Your task to perform on an android device: Open calendar and show me the fourth week of next month Image 0: 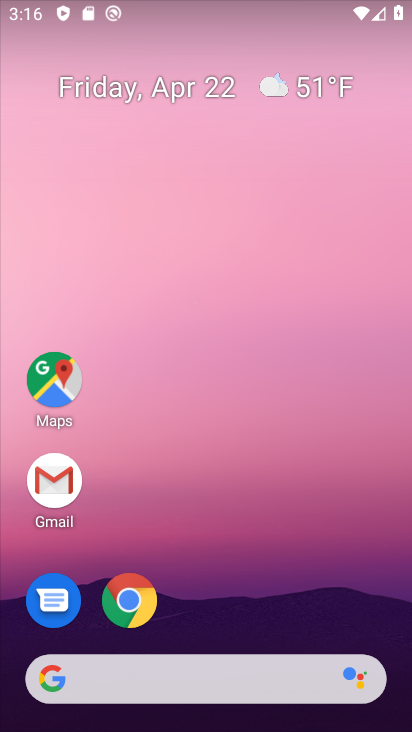
Step 0: drag from (297, 691) to (190, 69)
Your task to perform on an android device: Open calendar and show me the fourth week of next month Image 1: 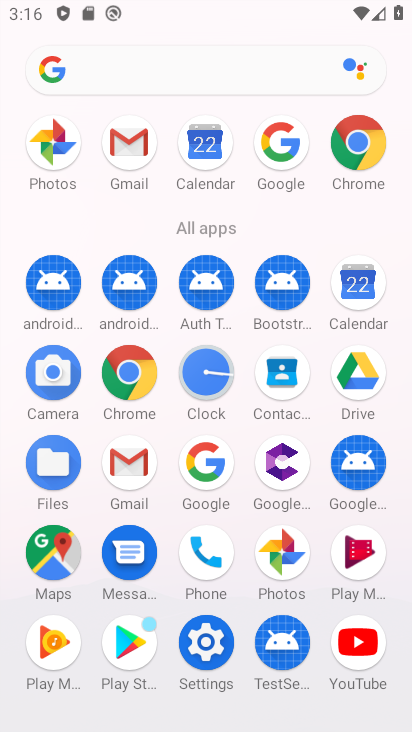
Step 1: drag from (212, 522) to (167, 155)
Your task to perform on an android device: Open calendar and show me the fourth week of next month Image 2: 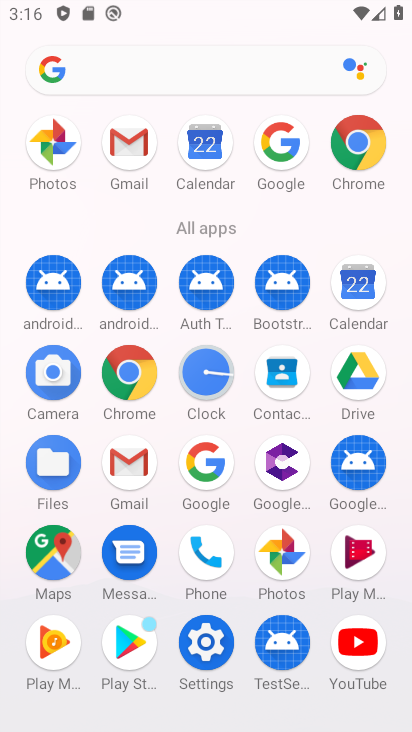
Step 2: click (211, 146)
Your task to perform on an android device: Open calendar and show me the fourth week of next month Image 3: 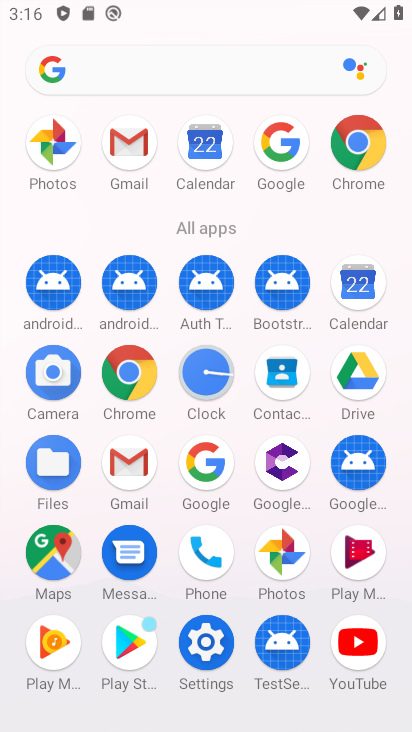
Step 3: click (211, 146)
Your task to perform on an android device: Open calendar and show me the fourth week of next month Image 4: 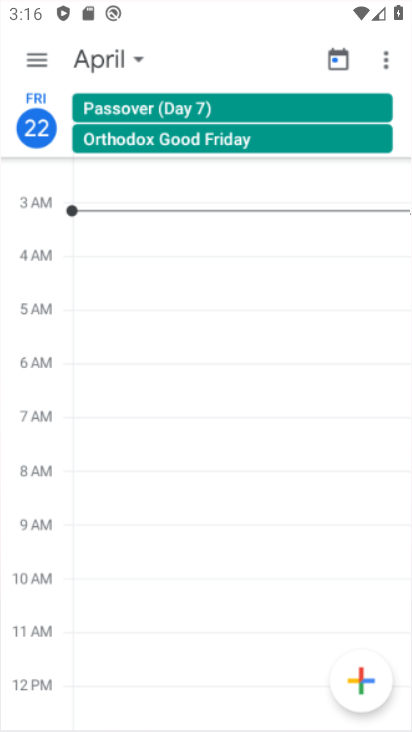
Step 4: click (211, 143)
Your task to perform on an android device: Open calendar and show me the fourth week of next month Image 5: 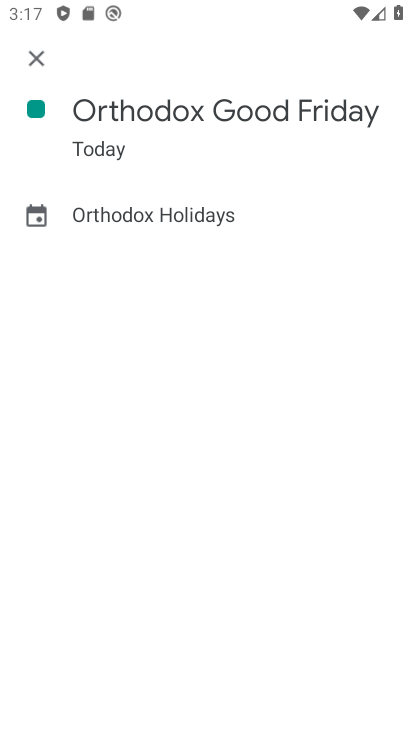
Step 5: click (37, 56)
Your task to perform on an android device: Open calendar and show me the fourth week of next month Image 6: 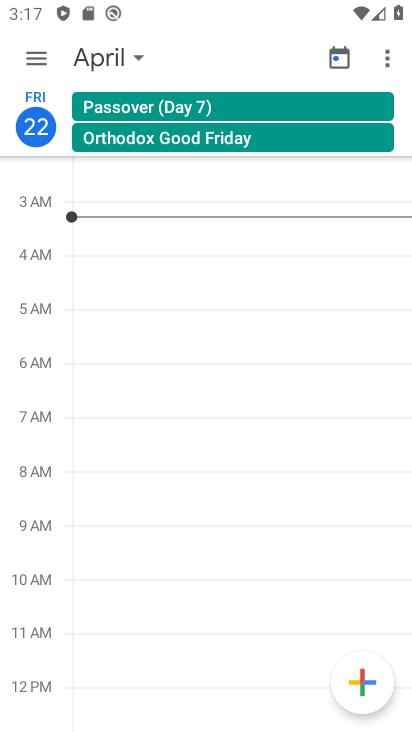
Step 6: click (134, 57)
Your task to perform on an android device: Open calendar and show me the fourth week of next month Image 7: 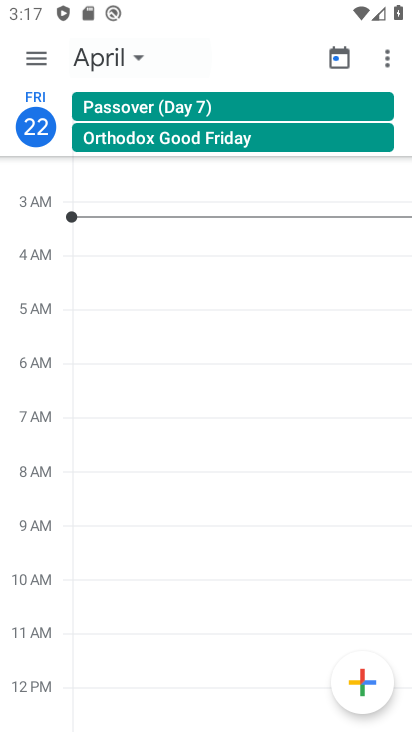
Step 7: click (136, 61)
Your task to perform on an android device: Open calendar and show me the fourth week of next month Image 8: 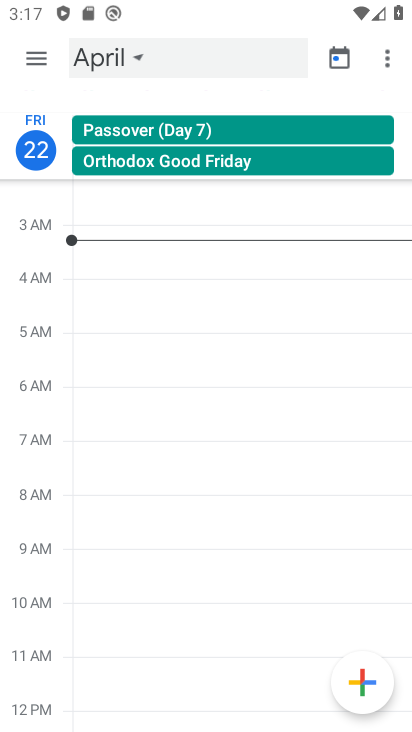
Step 8: click (139, 68)
Your task to perform on an android device: Open calendar and show me the fourth week of next month Image 9: 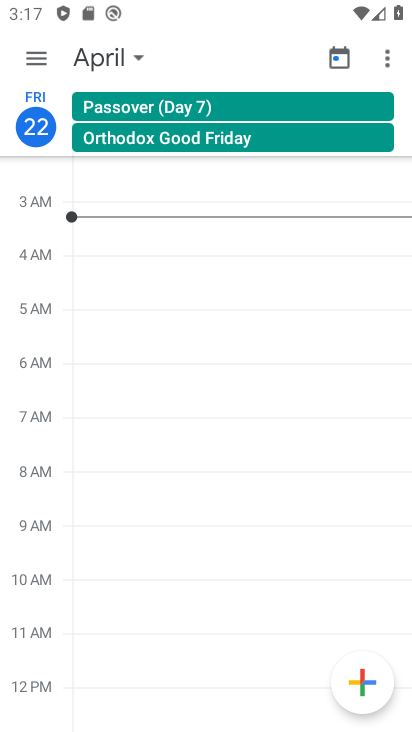
Step 9: click (136, 65)
Your task to perform on an android device: Open calendar and show me the fourth week of next month Image 10: 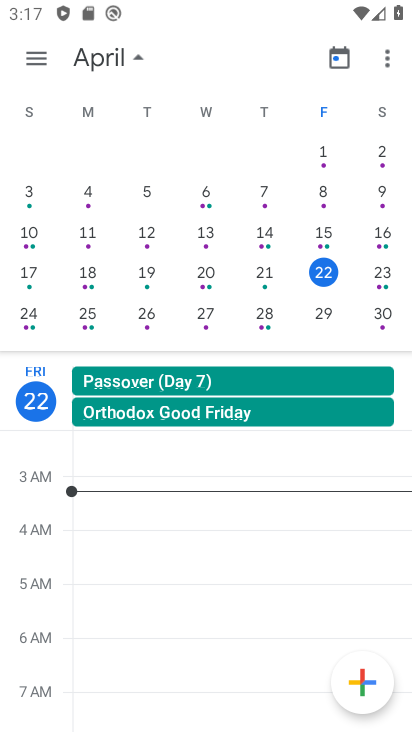
Step 10: drag from (0, 317) to (49, 269)
Your task to perform on an android device: Open calendar and show me the fourth week of next month Image 11: 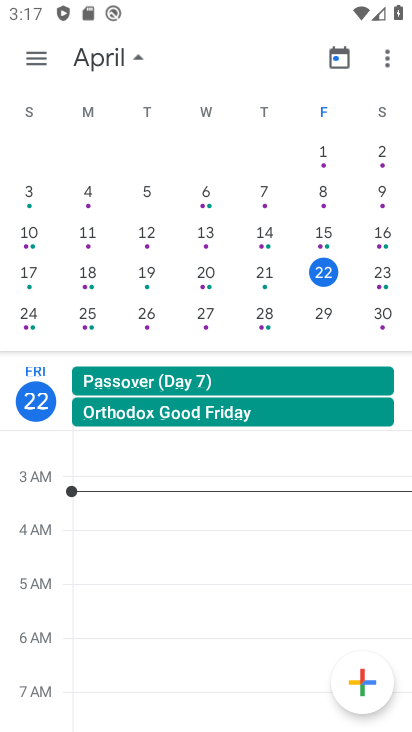
Step 11: click (59, 262)
Your task to perform on an android device: Open calendar and show me the fourth week of next month Image 12: 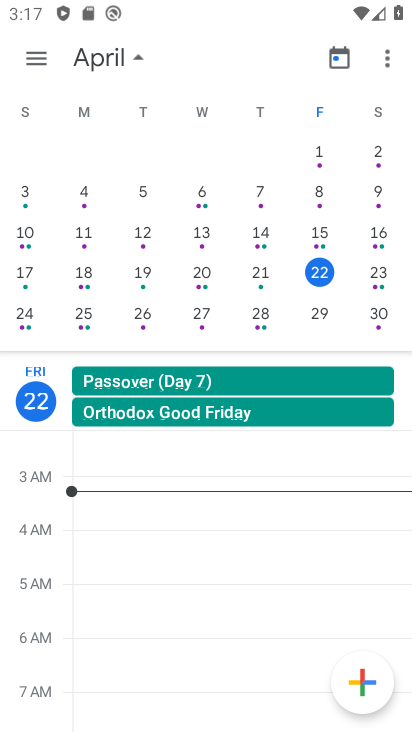
Step 12: click (72, 246)
Your task to perform on an android device: Open calendar and show me the fourth week of next month Image 13: 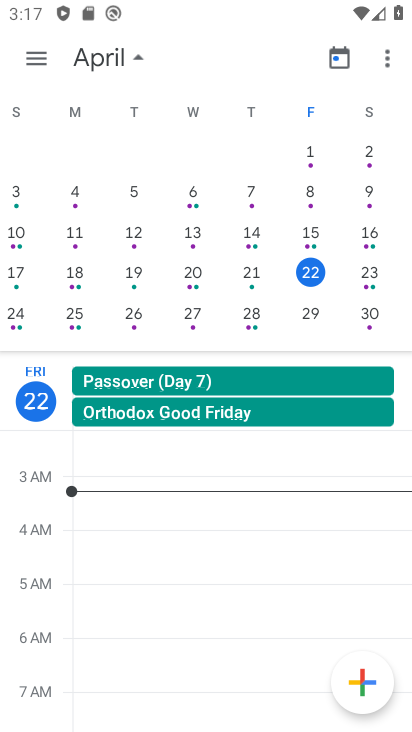
Step 13: drag from (174, 252) to (129, 249)
Your task to perform on an android device: Open calendar and show me the fourth week of next month Image 14: 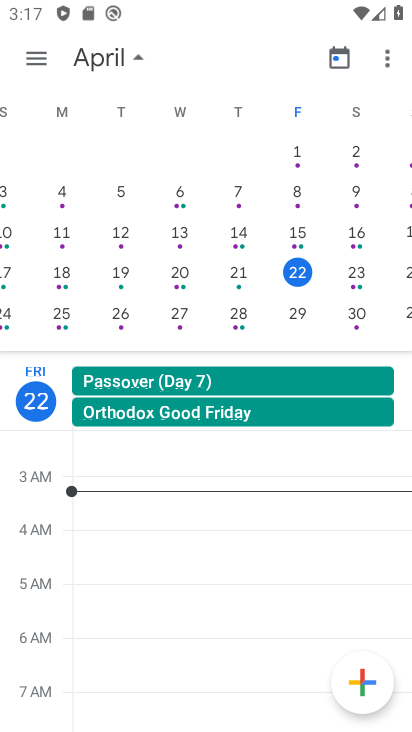
Step 14: drag from (237, 263) to (19, 251)
Your task to perform on an android device: Open calendar and show me the fourth week of next month Image 15: 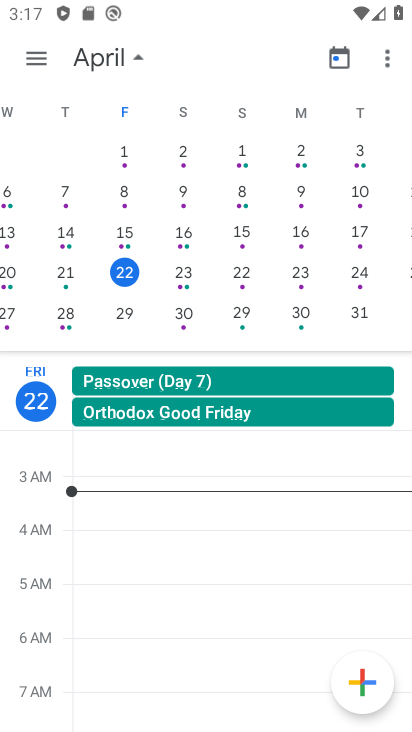
Step 15: click (48, 273)
Your task to perform on an android device: Open calendar and show me the fourth week of next month Image 16: 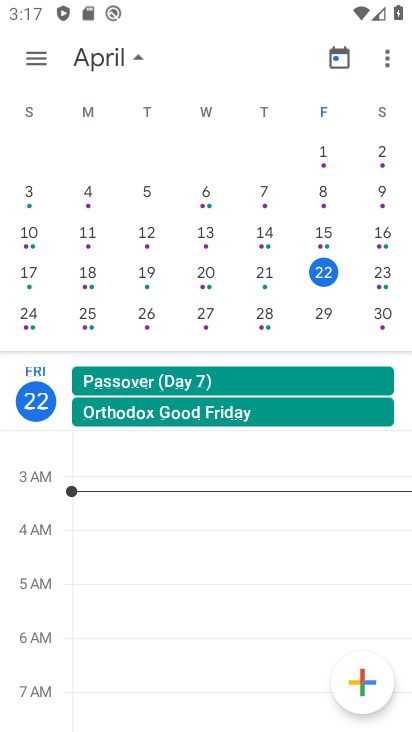
Step 16: drag from (178, 262) to (22, 242)
Your task to perform on an android device: Open calendar and show me the fourth week of next month Image 17: 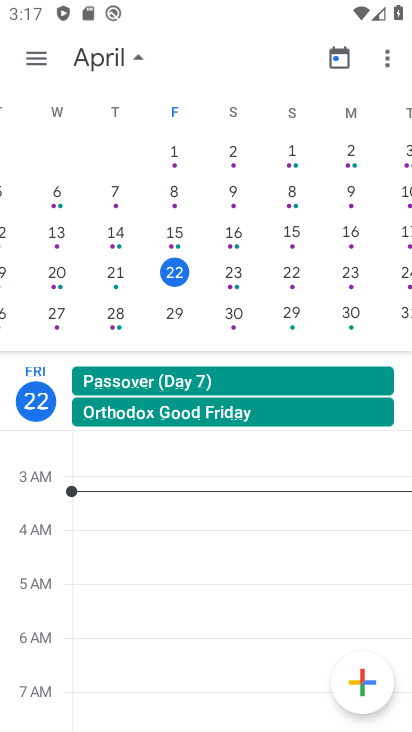
Step 17: click (22, 254)
Your task to perform on an android device: Open calendar and show me the fourth week of next month Image 18: 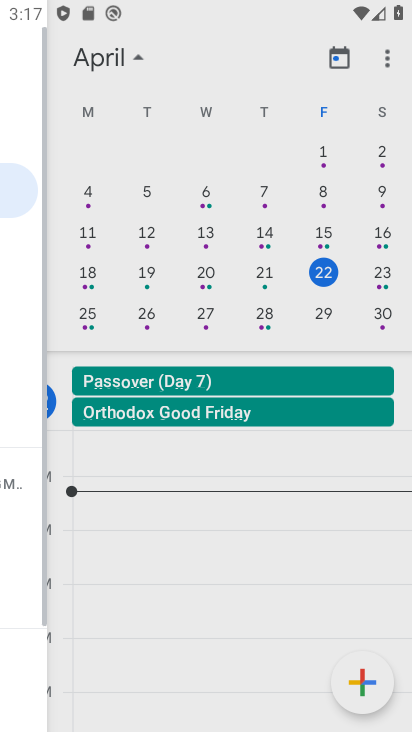
Step 18: drag from (239, 288) to (24, 289)
Your task to perform on an android device: Open calendar and show me the fourth week of next month Image 19: 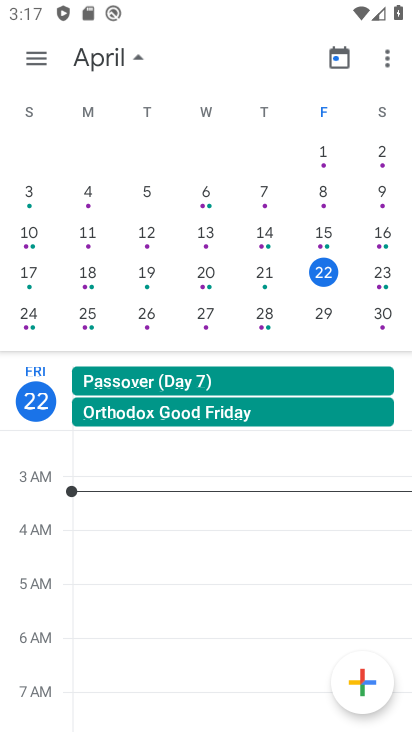
Step 19: drag from (221, 278) to (17, 275)
Your task to perform on an android device: Open calendar and show me the fourth week of next month Image 20: 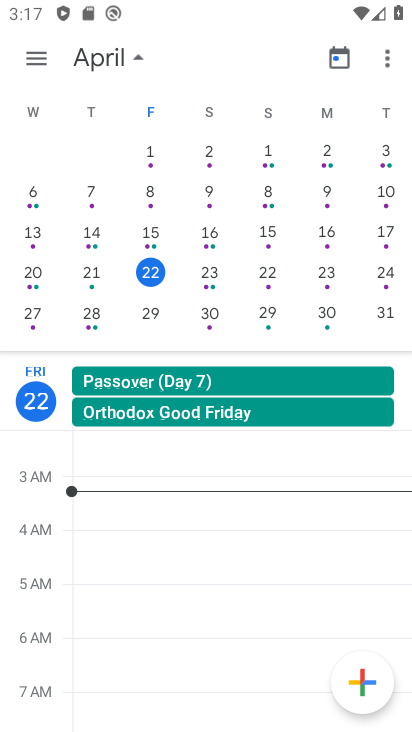
Step 20: drag from (107, 262) to (4, 294)
Your task to perform on an android device: Open calendar and show me the fourth week of next month Image 21: 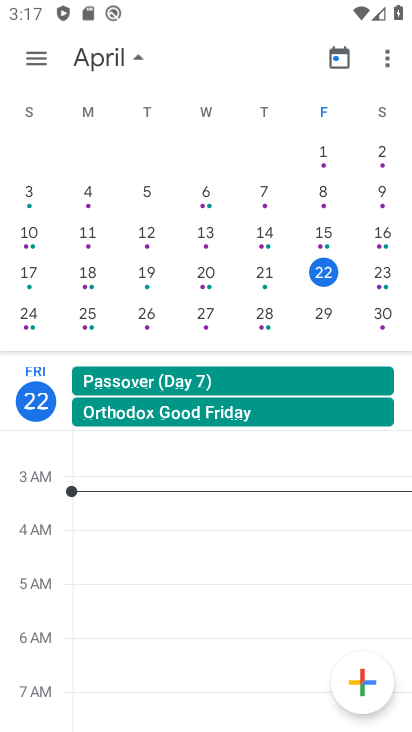
Step 21: drag from (307, 261) to (52, 288)
Your task to perform on an android device: Open calendar and show me the fourth week of next month Image 22: 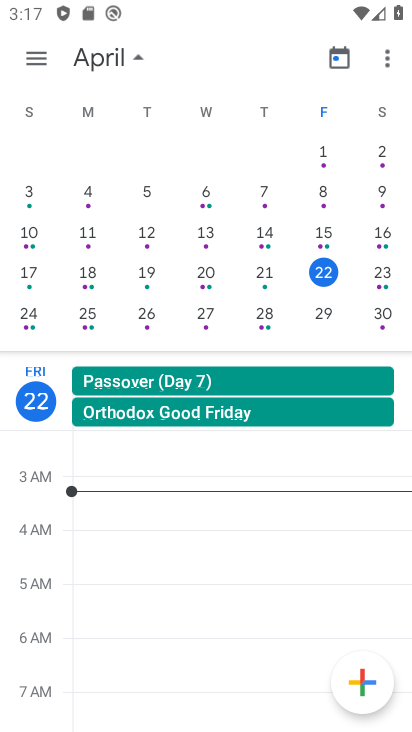
Step 22: drag from (316, 251) to (94, 259)
Your task to perform on an android device: Open calendar and show me the fourth week of next month Image 23: 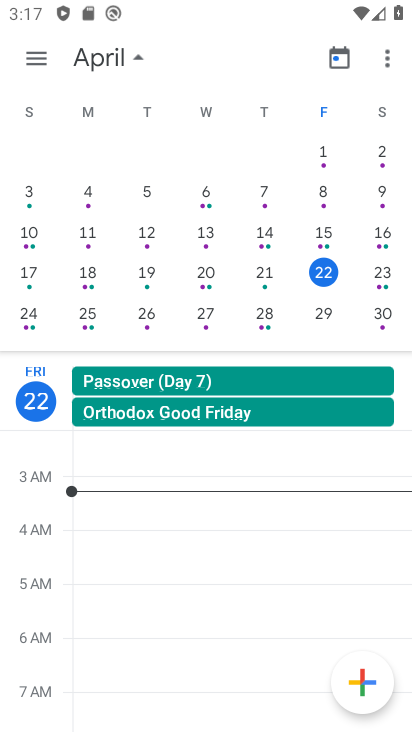
Step 23: drag from (231, 274) to (144, 257)
Your task to perform on an android device: Open calendar and show me the fourth week of next month Image 24: 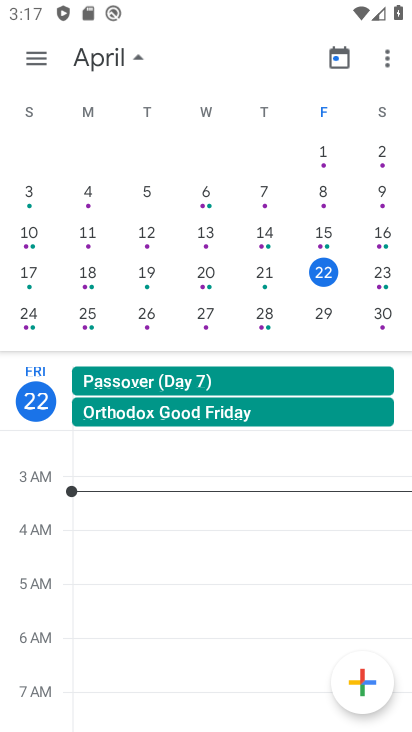
Step 24: drag from (273, 273) to (0, 300)
Your task to perform on an android device: Open calendar and show me the fourth week of next month Image 25: 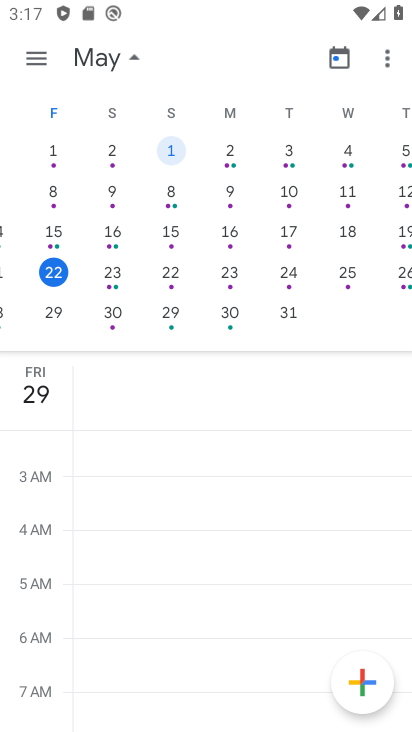
Step 25: click (1, 296)
Your task to perform on an android device: Open calendar and show me the fourth week of next month Image 26: 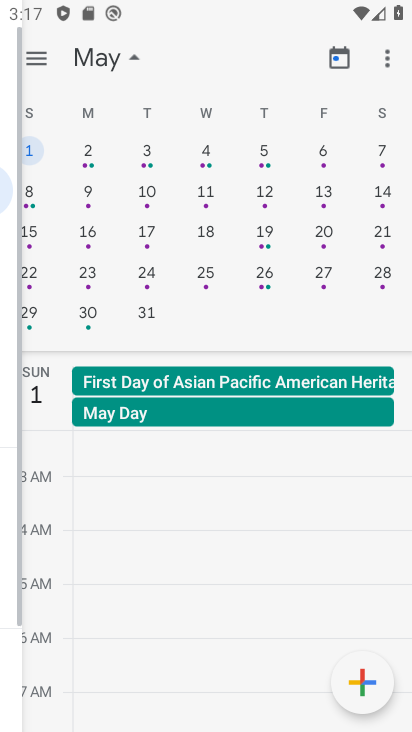
Step 26: drag from (1, 255) to (73, 264)
Your task to perform on an android device: Open calendar and show me the fourth week of next month Image 27: 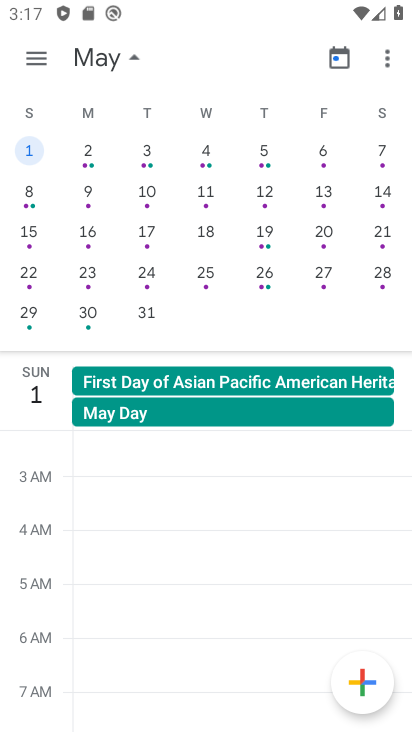
Step 27: click (89, 266)
Your task to perform on an android device: Open calendar and show me the fourth week of next month Image 28: 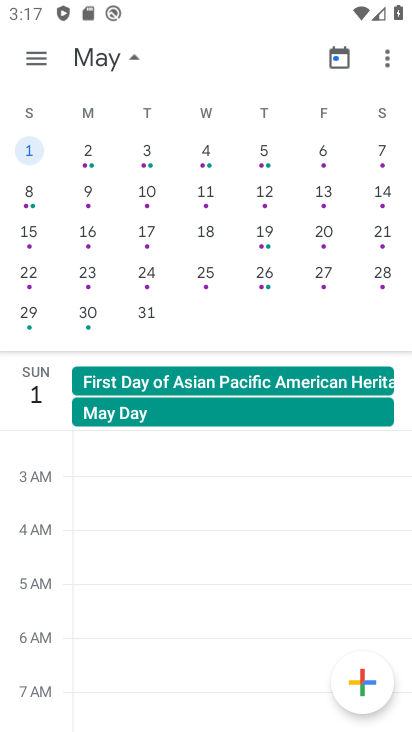
Step 28: click (89, 267)
Your task to perform on an android device: Open calendar and show me the fourth week of next month Image 29: 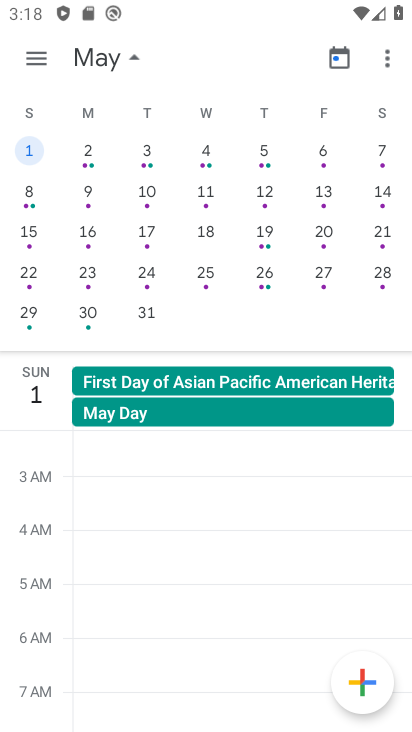
Step 29: click (89, 269)
Your task to perform on an android device: Open calendar and show me the fourth week of next month Image 30: 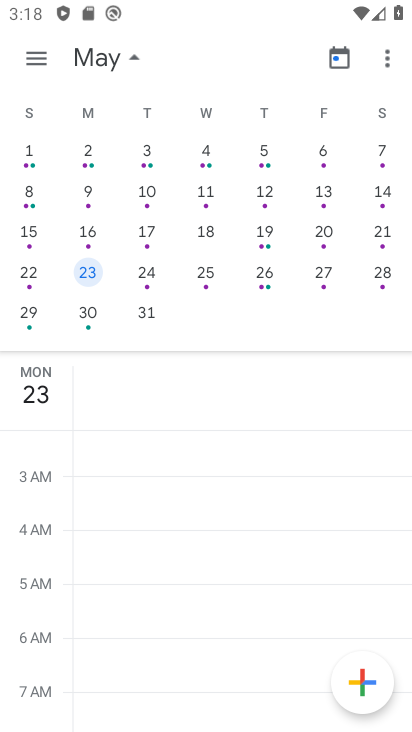
Step 30: task complete